Your task to perform on an android device: check google app version Image 0: 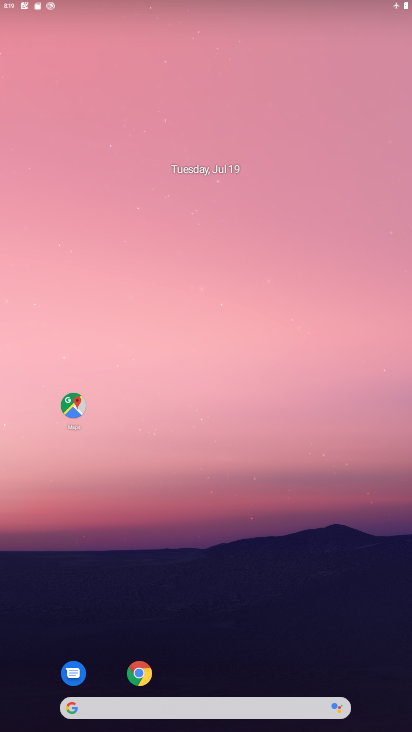
Step 0: drag from (202, 697) to (131, 296)
Your task to perform on an android device: check google app version Image 1: 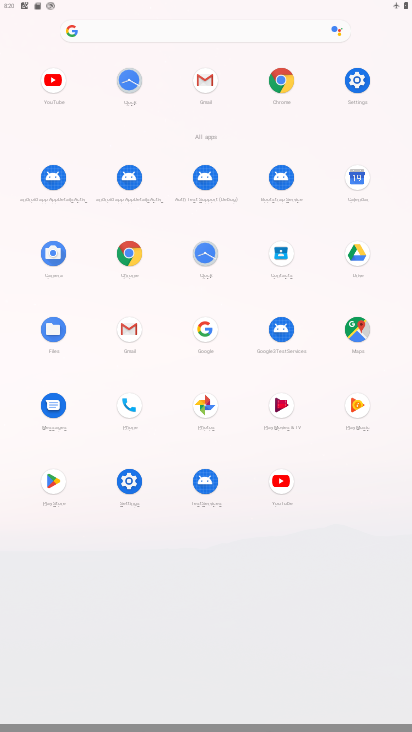
Step 1: click (130, 261)
Your task to perform on an android device: check google app version Image 2: 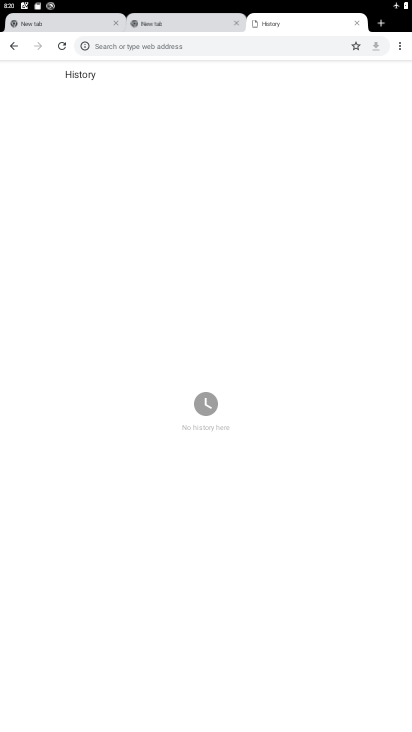
Step 2: drag from (403, 42) to (278, 239)
Your task to perform on an android device: check google app version Image 3: 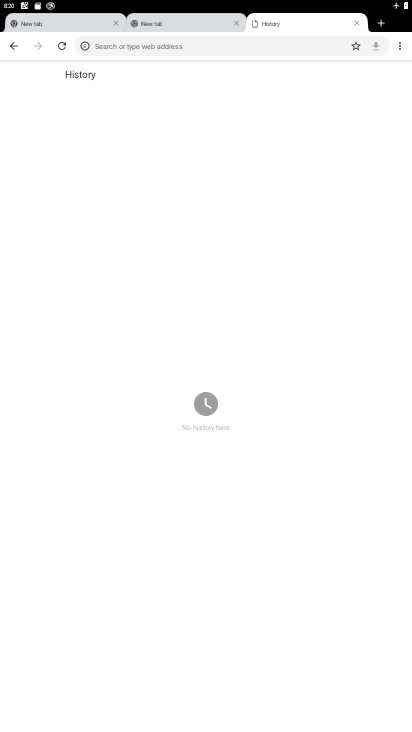
Step 3: drag from (398, 43) to (326, 235)
Your task to perform on an android device: check google app version Image 4: 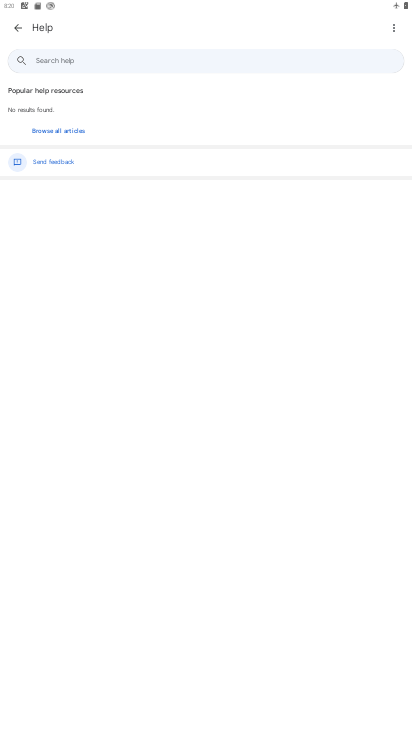
Step 4: click (388, 20)
Your task to perform on an android device: check google app version Image 5: 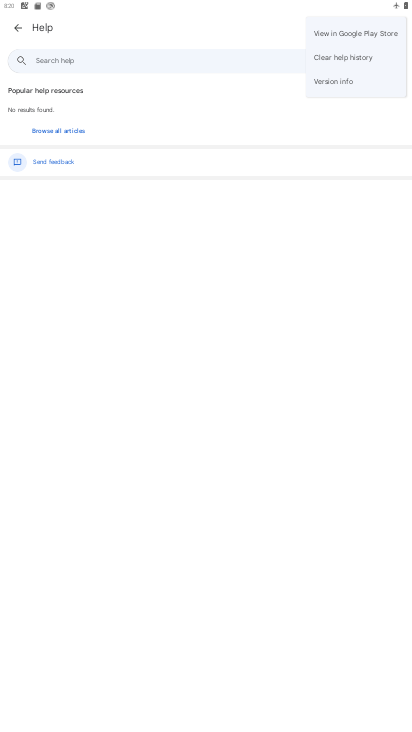
Step 5: click (357, 86)
Your task to perform on an android device: check google app version Image 6: 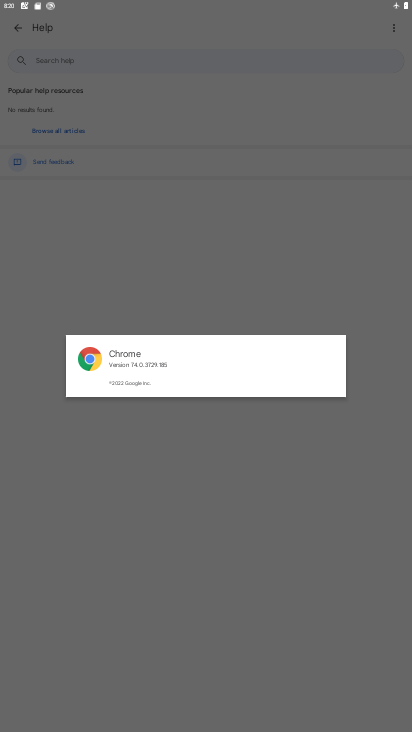
Step 6: task complete